Your task to perform on an android device: Open display settings Image 0: 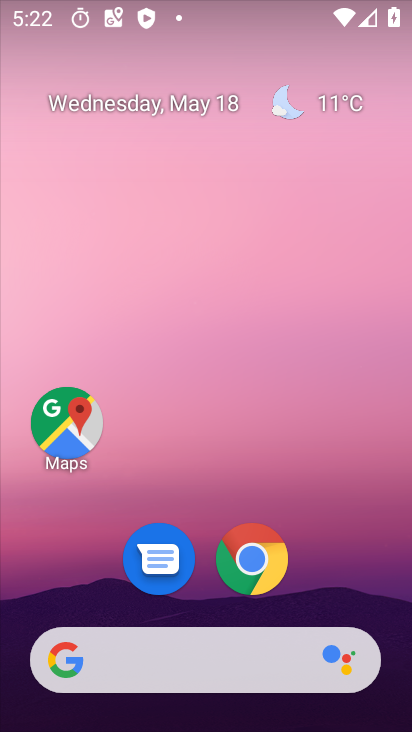
Step 0: drag from (186, 575) to (234, 106)
Your task to perform on an android device: Open display settings Image 1: 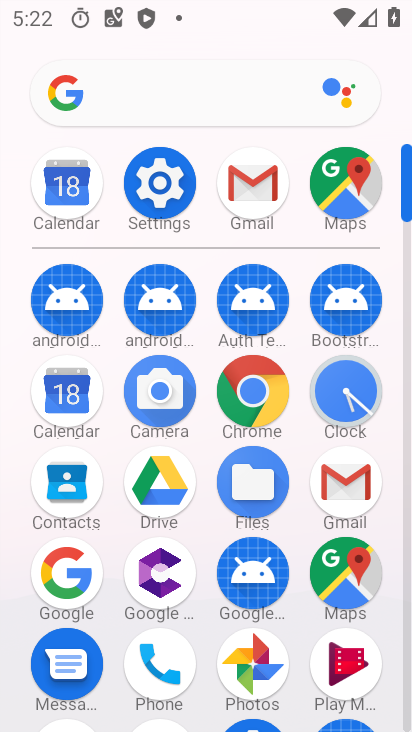
Step 1: click (168, 171)
Your task to perform on an android device: Open display settings Image 2: 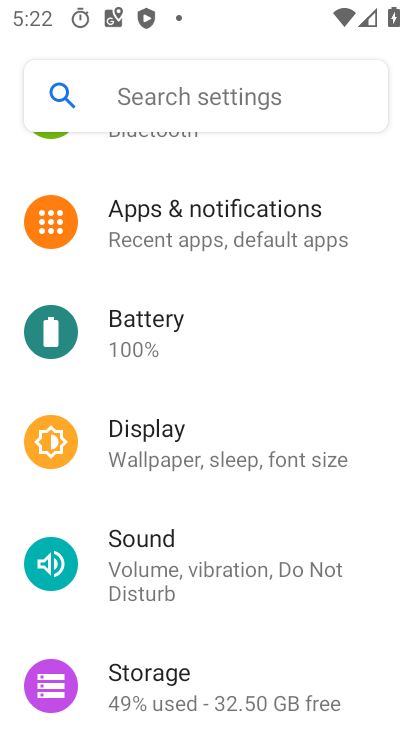
Step 2: click (146, 436)
Your task to perform on an android device: Open display settings Image 3: 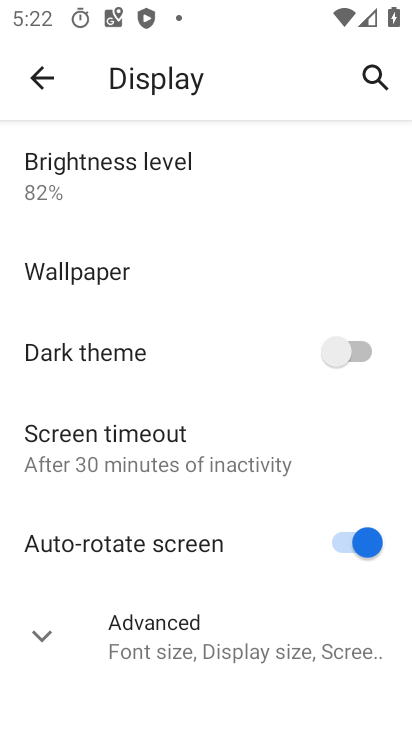
Step 3: task complete